Your task to perform on an android device: add a contact in the contacts app Image 0: 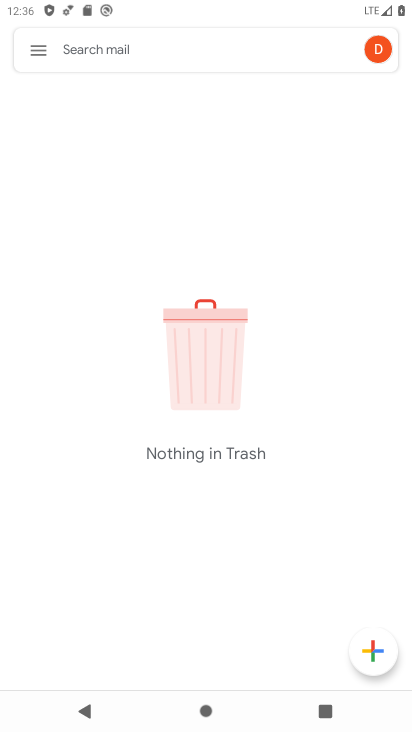
Step 0: press home button
Your task to perform on an android device: add a contact in the contacts app Image 1: 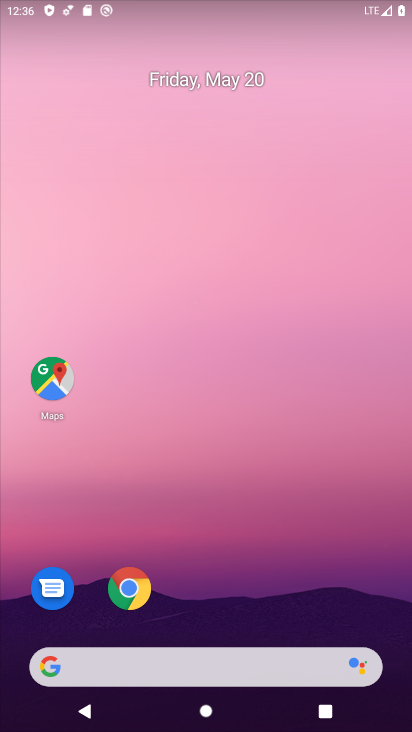
Step 1: drag from (360, 617) to (332, 50)
Your task to perform on an android device: add a contact in the contacts app Image 2: 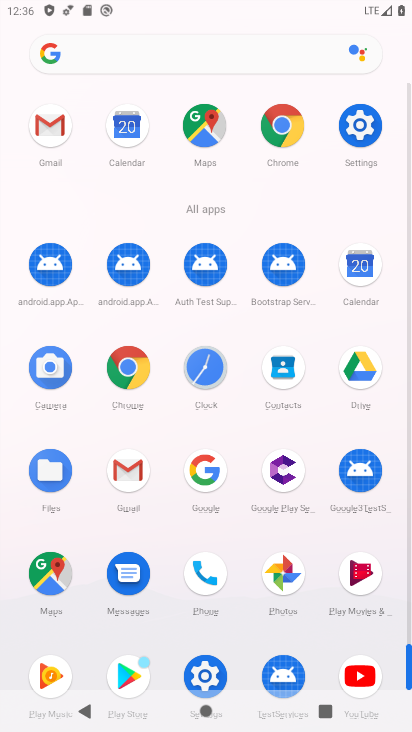
Step 2: click (281, 365)
Your task to perform on an android device: add a contact in the contacts app Image 3: 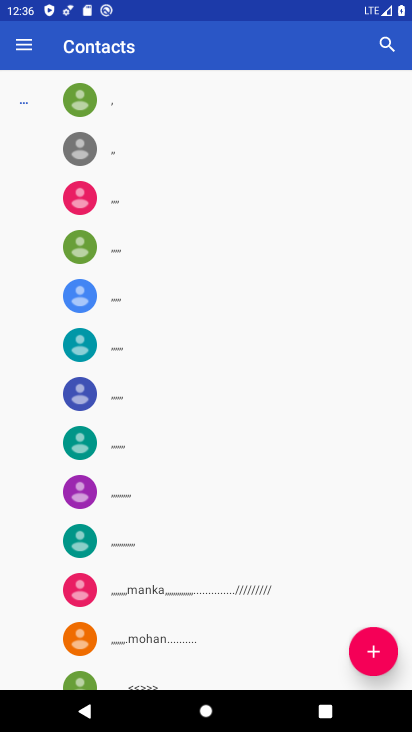
Step 3: click (373, 650)
Your task to perform on an android device: add a contact in the contacts app Image 4: 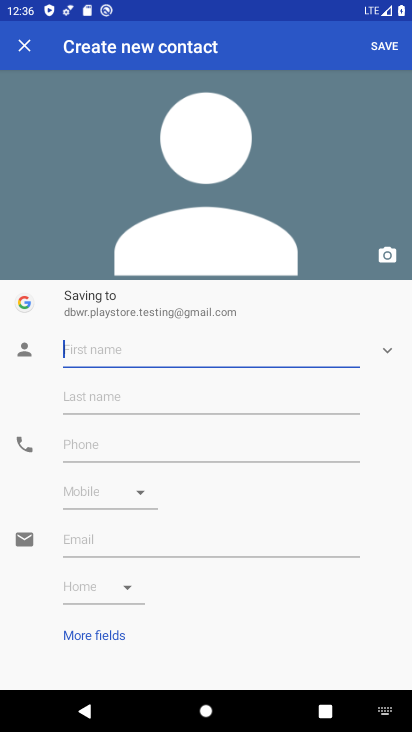
Step 4: type ""
Your task to perform on an android device: add a contact in the contacts app Image 5: 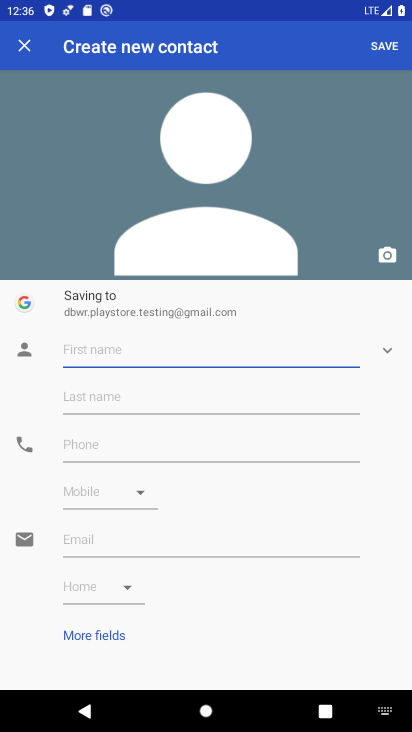
Step 5: type "geritogsps"
Your task to perform on an android device: add a contact in the contacts app Image 6: 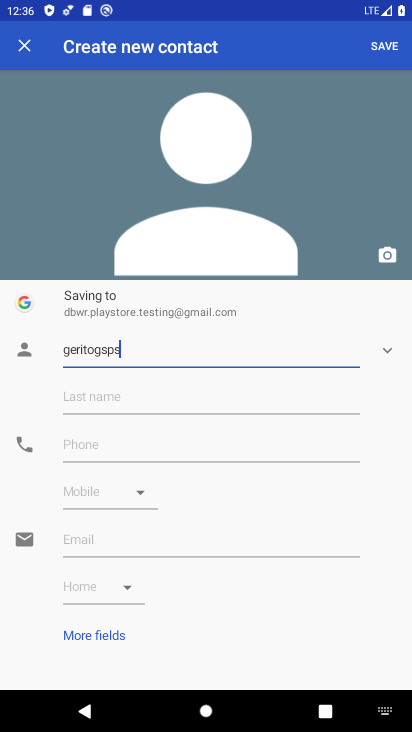
Step 6: click (122, 439)
Your task to perform on an android device: add a contact in the contacts app Image 7: 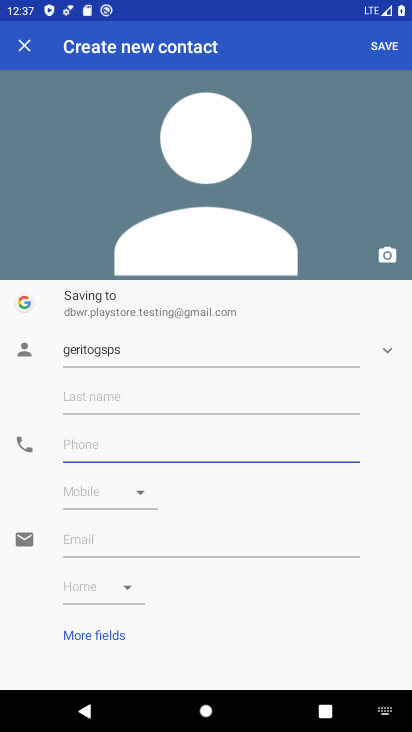
Step 7: type "0987654321"
Your task to perform on an android device: add a contact in the contacts app Image 8: 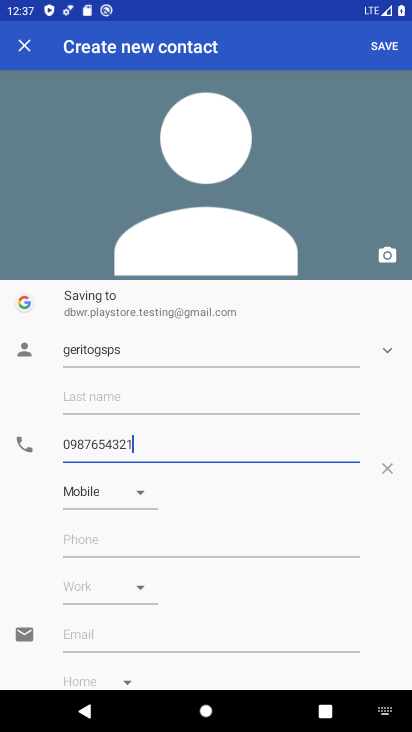
Step 8: click (133, 487)
Your task to perform on an android device: add a contact in the contacts app Image 9: 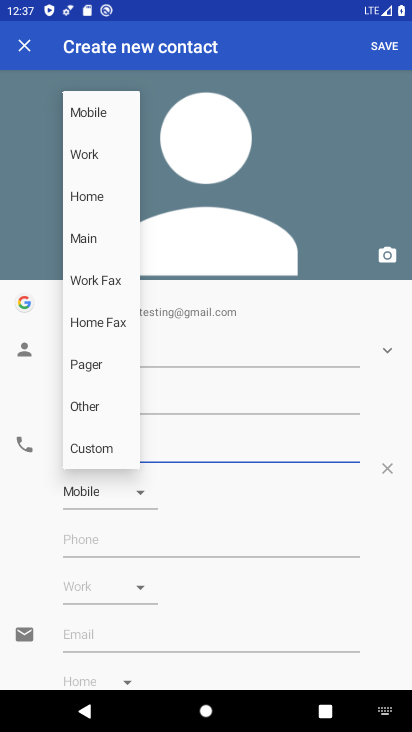
Step 9: click (82, 150)
Your task to perform on an android device: add a contact in the contacts app Image 10: 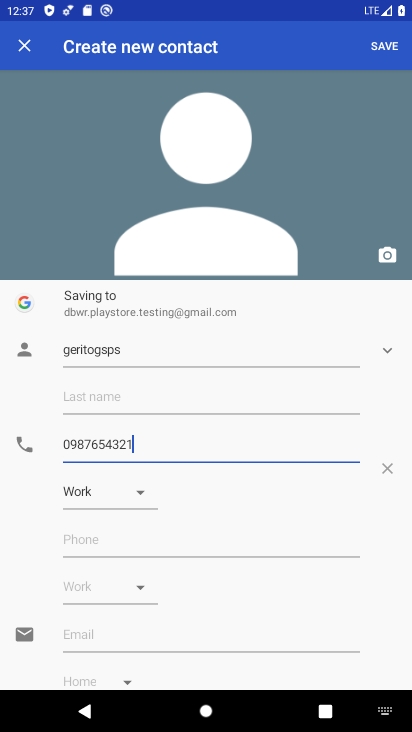
Step 10: click (380, 39)
Your task to perform on an android device: add a contact in the contacts app Image 11: 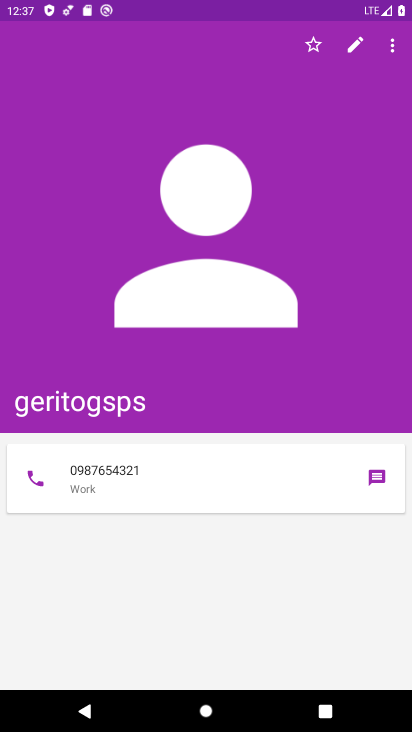
Step 11: task complete